Your task to perform on an android device: change notifications settings Image 0: 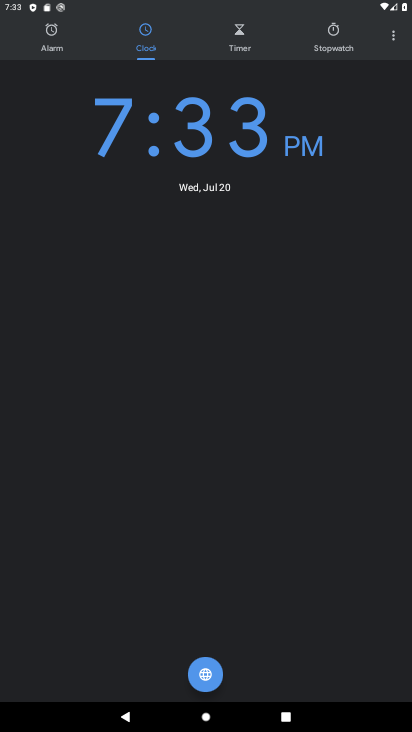
Step 0: press home button
Your task to perform on an android device: change notifications settings Image 1: 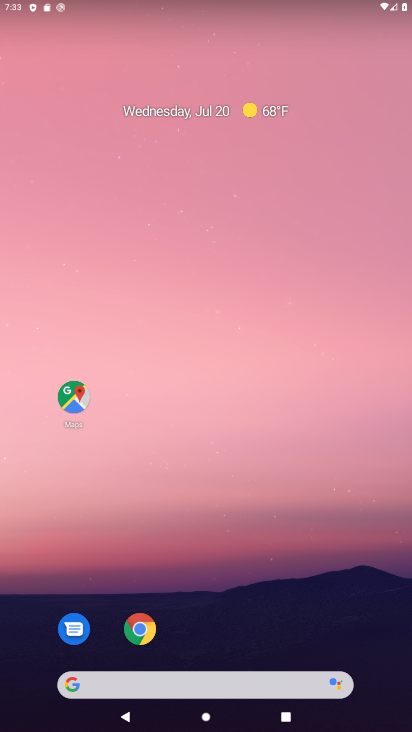
Step 1: drag from (396, 632) to (303, 654)
Your task to perform on an android device: change notifications settings Image 2: 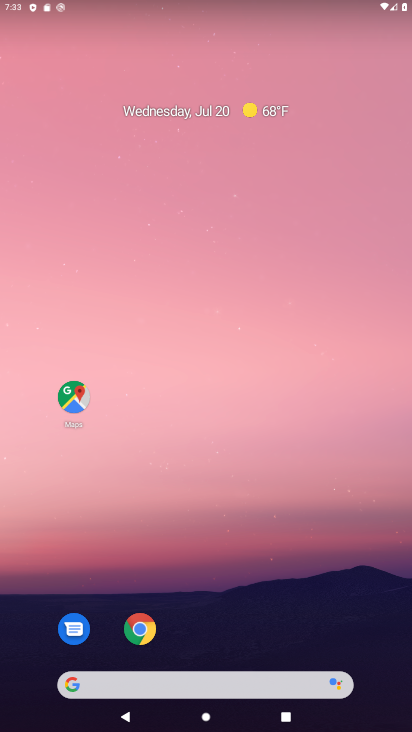
Step 2: drag from (341, 610) to (410, 132)
Your task to perform on an android device: change notifications settings Image 3: 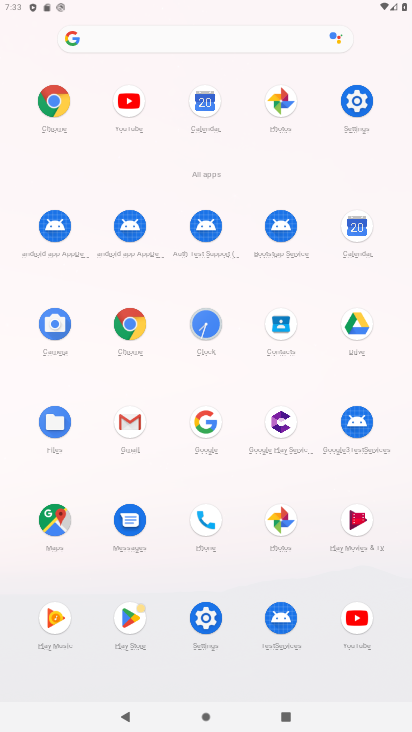
Step 3: click (354, 99)
Your task to perform on an android device: change notifications settings Image 4: 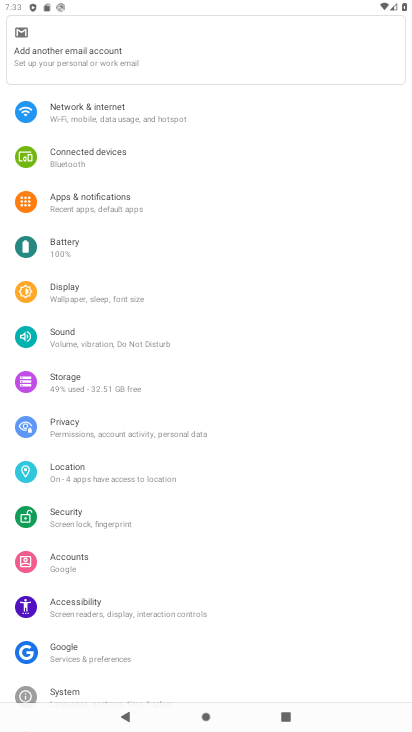
Step 4: drag from (341, 162) to (327, 233)
Your task to perform on an android device: change notifications settings Image 5: 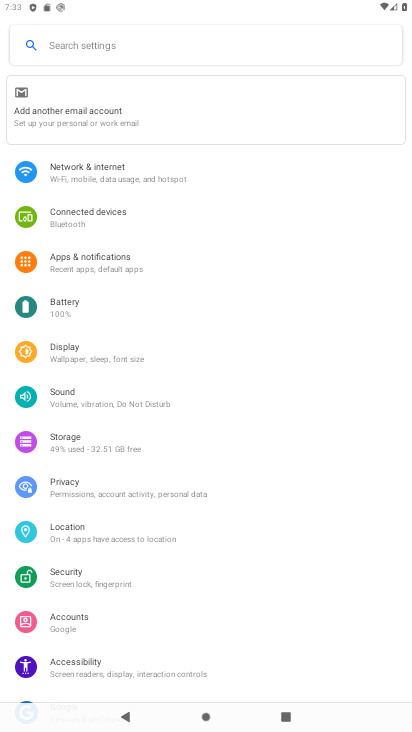
Step 5: drag from (327, 186) to (312, 312)
Your task to perform on an android device: change notifications settings Image 6: 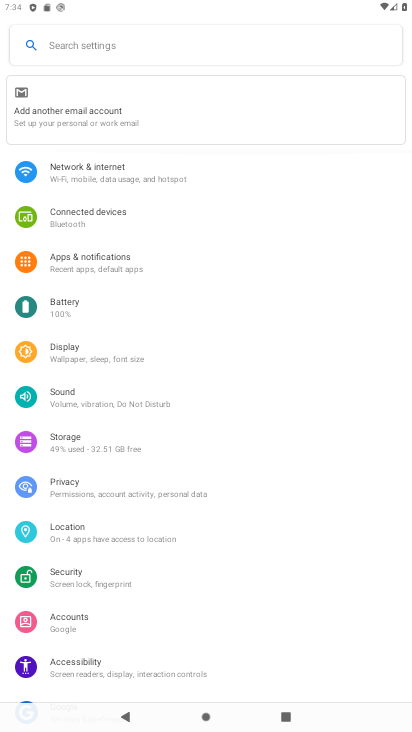
Step 6: drag from (318, 353) to (326, 268)
Your task to perform on an android device: change notifications settings Image 7: 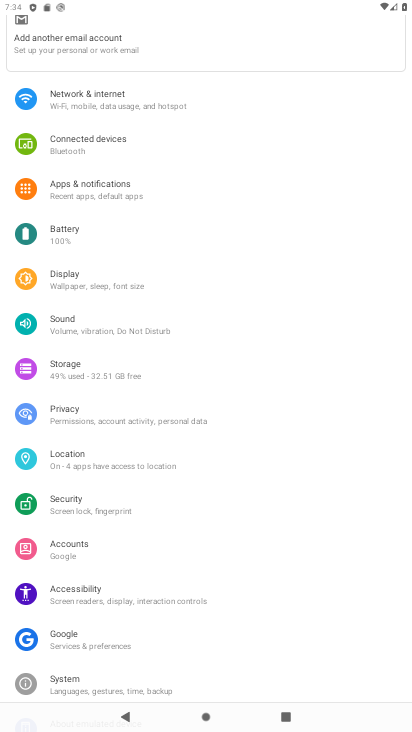
Step 7: drag from (326, 356) to (336, 276)
Your task to perform on an android device: change notifications settings Image 8: 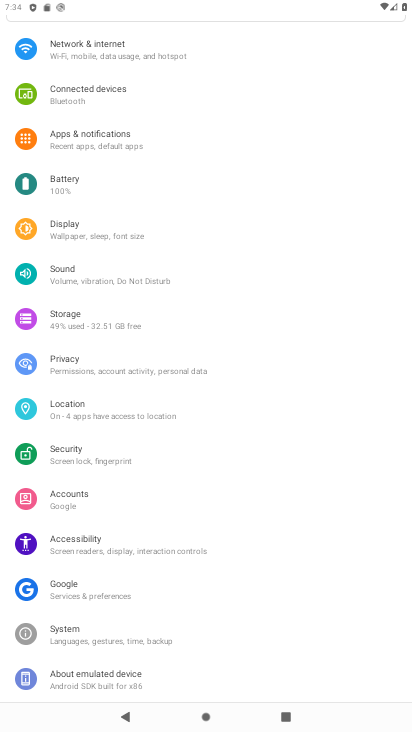
Step 8: drag from (335, 376) to (348, 273)
Your task to perform on an android device: change notifications settings Image 9: 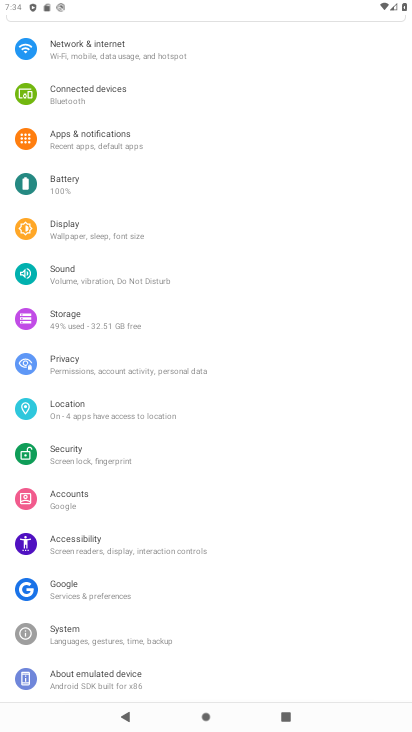
Step 9: drag from (322, 198) to (342, 378)
Your task to perform on an android device: change notifications settings Image 10: 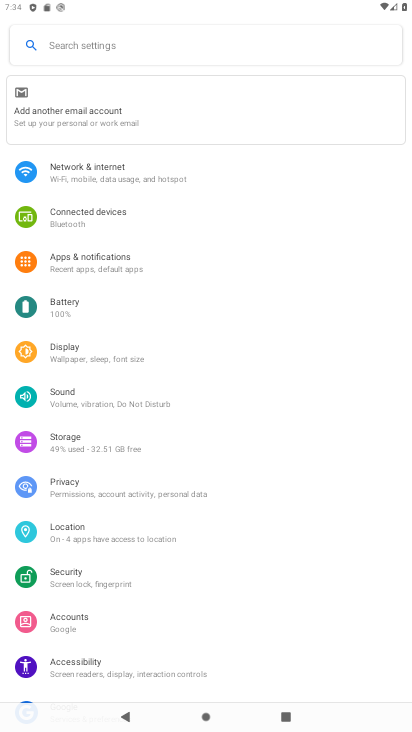
Step 10: click (148, 265)
Your task to perform on an android device: change notifications settings Image 11: 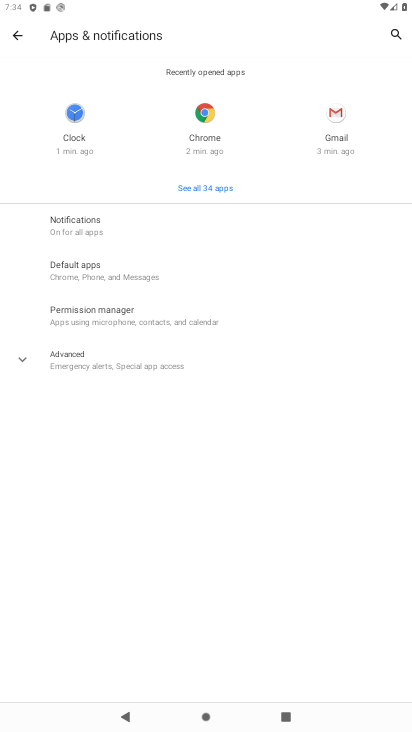
Step 11: click (118, 230)
Your task to perform on an android device: change notifications settings Image 12: 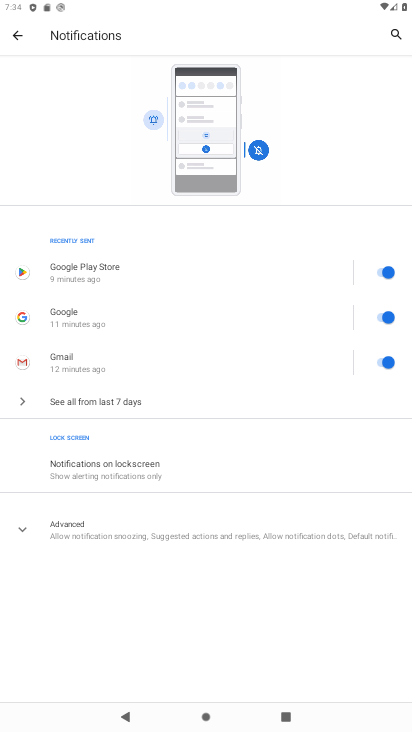
Step 12: task complete